Your task to perform on an android device: see sites visited before in the chrome app Image 0: 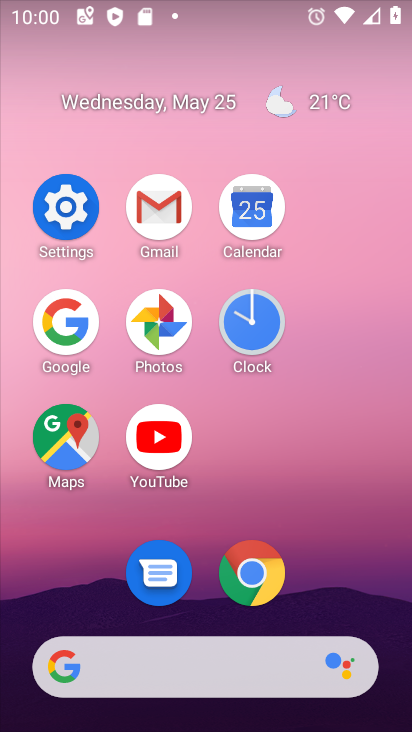
Step 0: click (266, 567)
Your task to perform on an android device: see sites visited before in the chrome app Image 1: 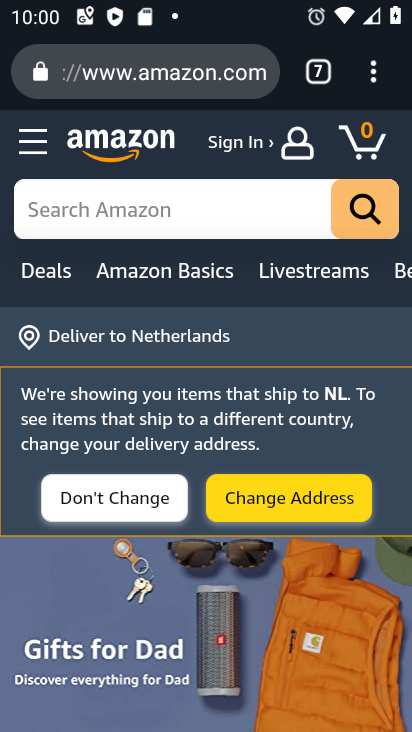
Step 1: click (374, 73)
Your task to perform on an android device: see sites visited before in the chrome app Image 2: 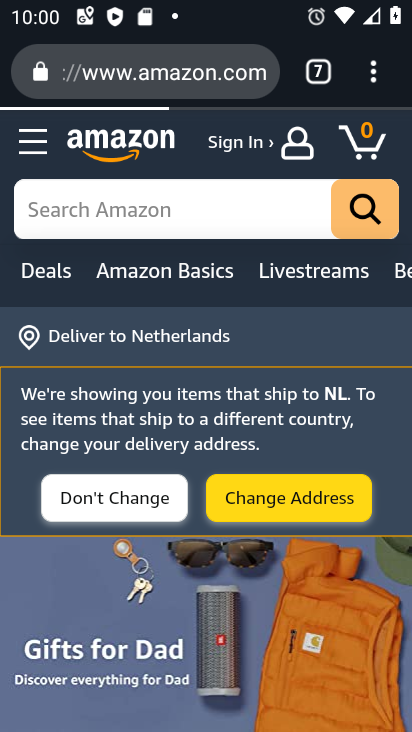
Step 2: click (372, 77)
Your task to perform on an android device: see sites visited before in the chrome app Image 3: 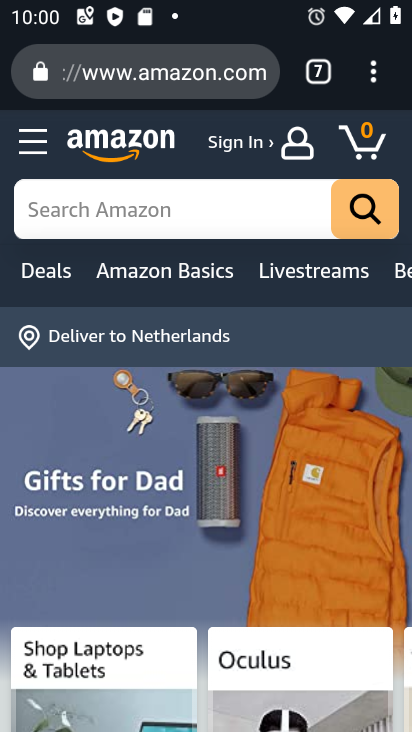
Step 3: click (373, 84)
Your task to perform on an android device: see sites visited before in the chrome app Image 4: 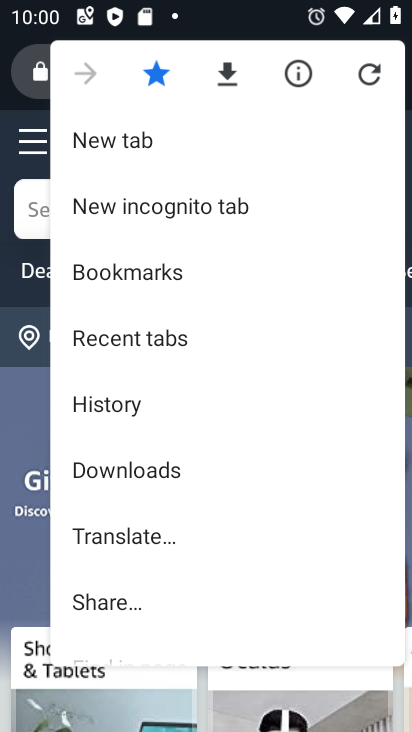
Step 4: click (108, 337)
Your task to perform on an android device: see sites visited before in the chrome app Image 5: 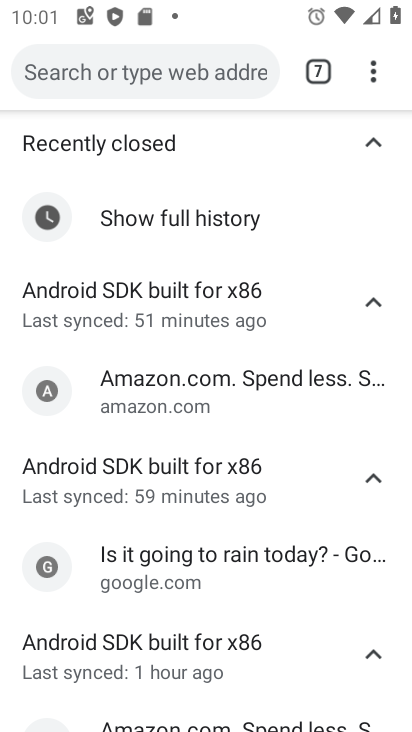
Step 5: task complete